Your task to perform on an android device: Check the weather Image 0: 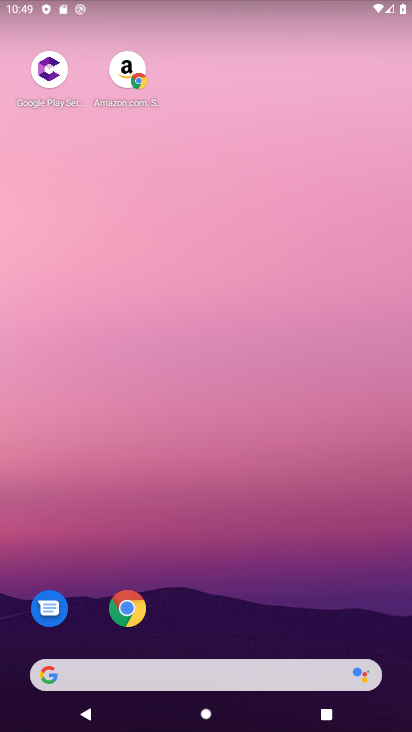
Step 0: drag from (327, 533) to (265, 25)
Your task to perform on an android device: Check the weather Image 1: 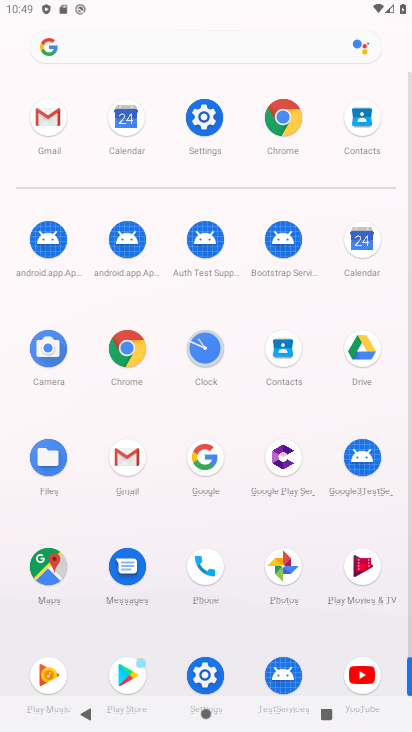
Step 1: click (123, 42)
Your task to perform on an android device: Check the weather Image 2: 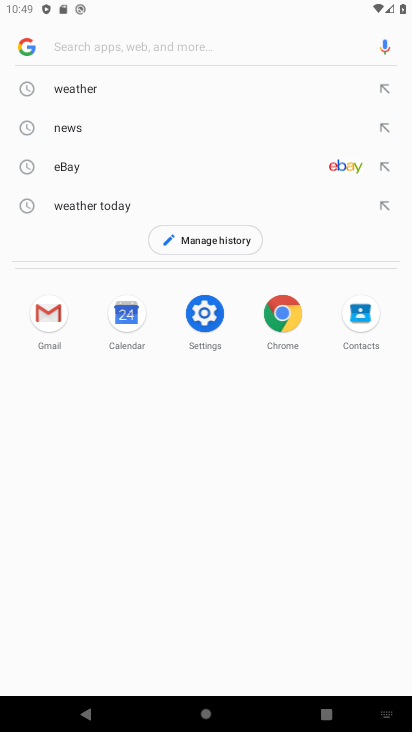
Step 2: click (82, 79)
Your task to perform on an android device: Check the weather Image 3: 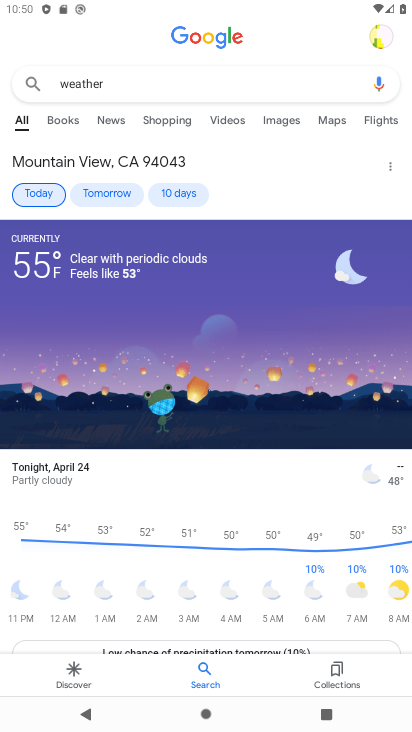
Step 3: task complete